Your task to perform on an android device: Go to eBay Image 0: 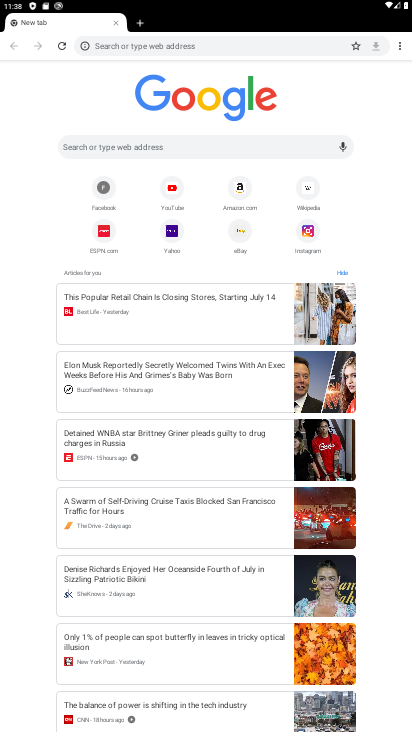
Step 0: press home button
Your task to perform on an android device: Go to eBay Image 1: 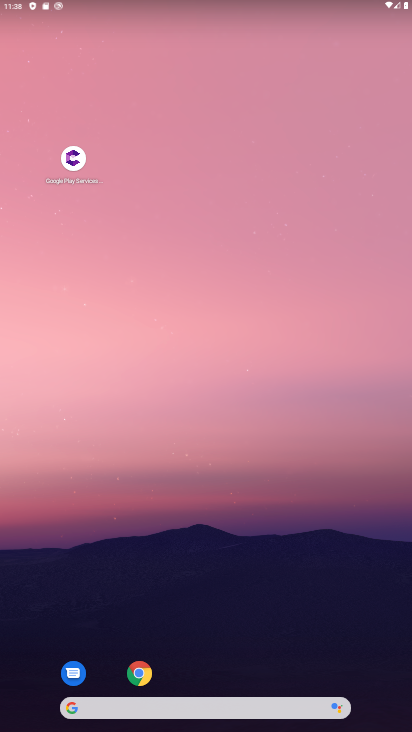
Step 1: click (140, 674)
Your task to perform on an android device: Go to eBay Image 2: 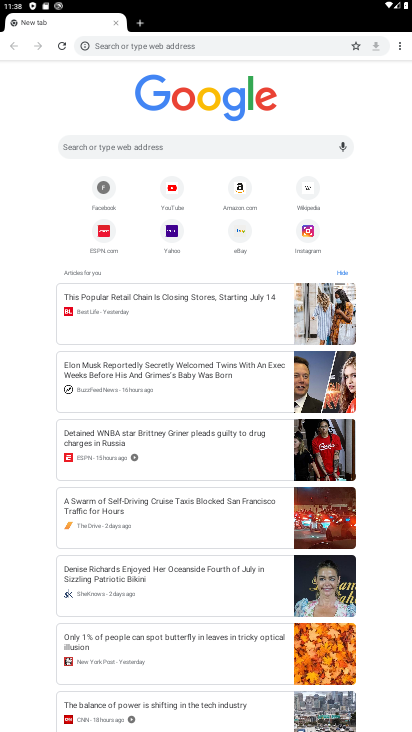
Step 2: click (222, 147)
Your task to perform on an android device: Go to eBay Image 3: 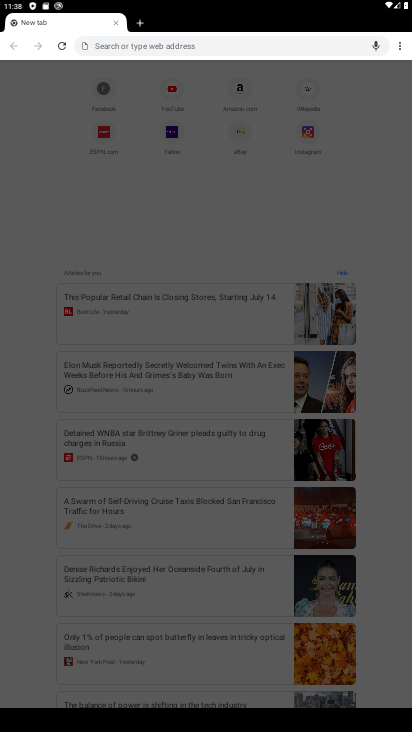
Step 3: type "eBay"
Your task to perform on an android device: Go to eBay Image 4: 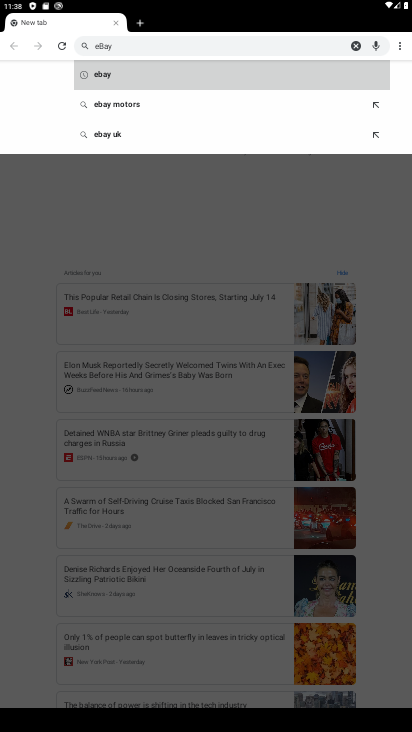
Step 4: click (116, 79)
Your task to perform on an android device: Go to eBay Image 5: 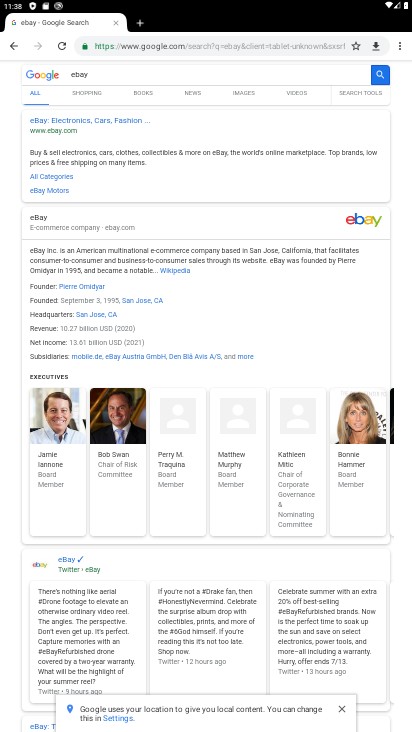
Step 5: click (68, 124)
Your task to perform on an android device: Go to eBay Image 6: 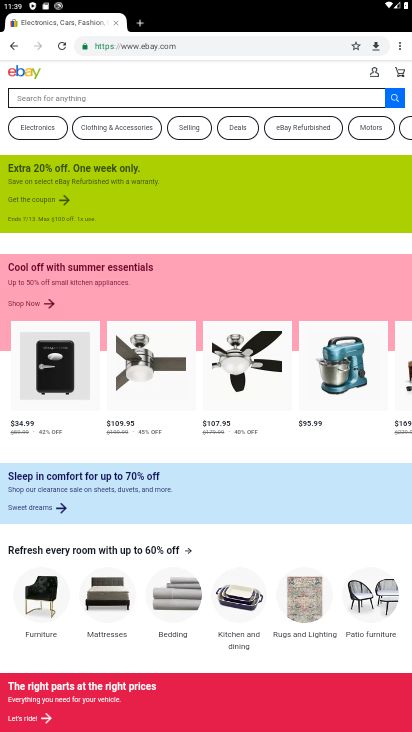
Step 6: task complete